Your task to perform on an android device: What's the news in Pakistan? Image 0: 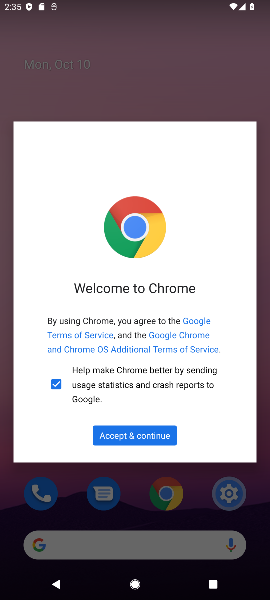
Step 0: click (117, 434)
Your task to perform on an android device: What's the news in Pakistan? Image 1: 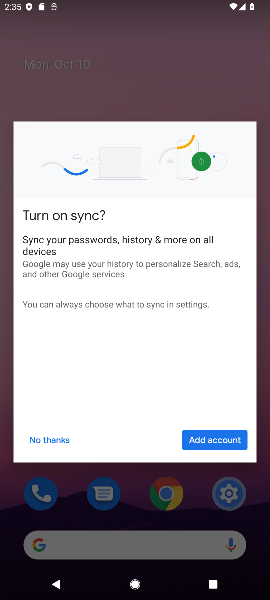
Step 1: click (47, 439)
Your task to perform on an android device: What's the news in Pakistan? Image 2: 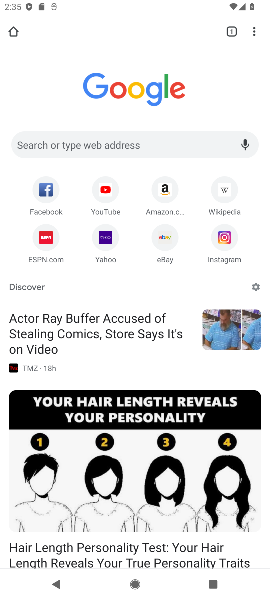
Step 2: click (75, 135)
Your task to perform on an android device: What's the news in Pakistan? Image 3: 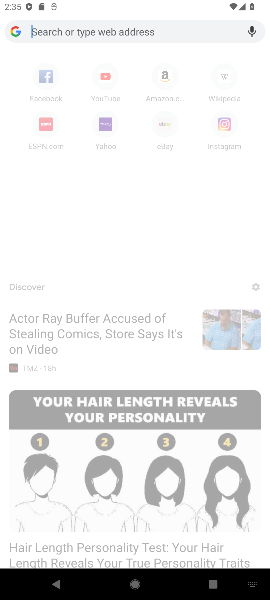
Step 3: type "news in pakistan"
Your task to perform on an android device: What's the news in Pakistan? Image 4: 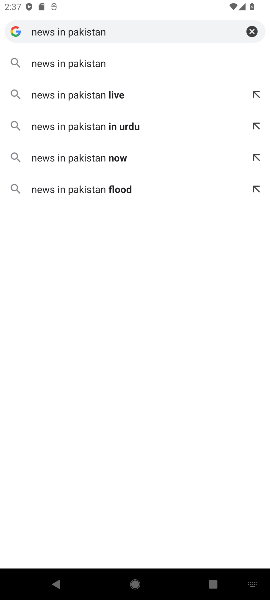
Step 4: click (111, 63)
Your task to perform on an android device: What's the news in Pakistan? Image 5: 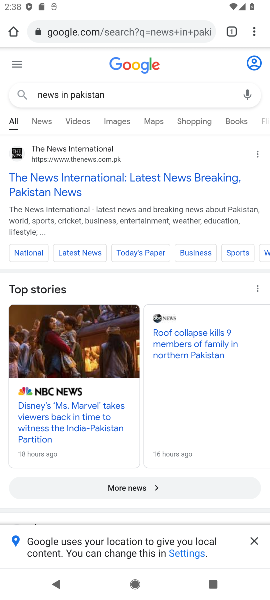
Step 5: task complete